Your task to perform on an android device: Open the calendar app, open the side menu, and click the "Day" option Image 0: 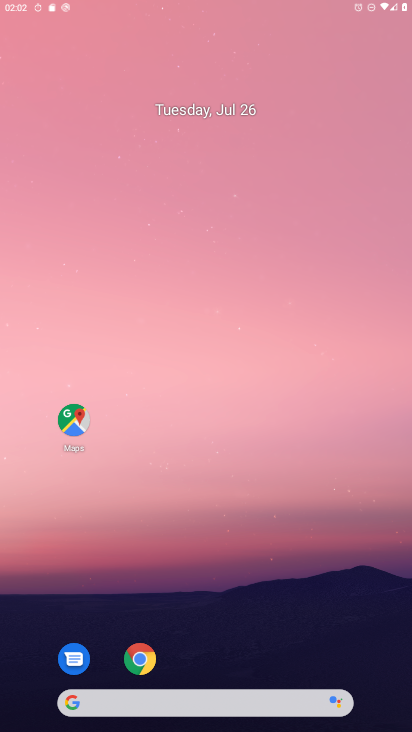
Step 0: press home button
Your task to perform on an android device: Open the calendar app, open the side menu, and click the "Day" option Image 1: 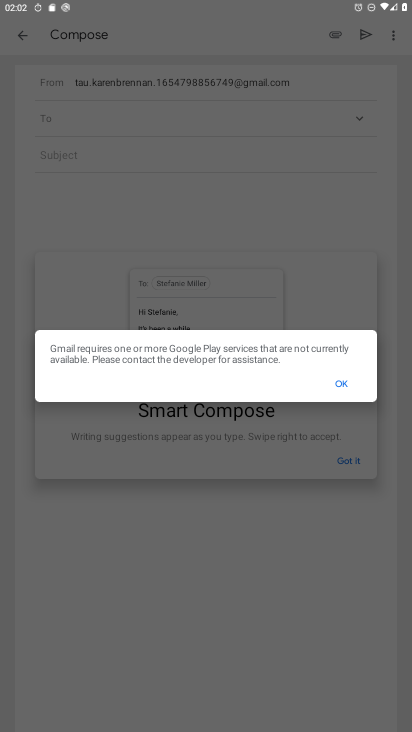
Step 1: drag from (167, 633) to (141, 161)
Your task to perform on an android device: Open the calendar app, open the side menu, and click the "Day" option Image 2: 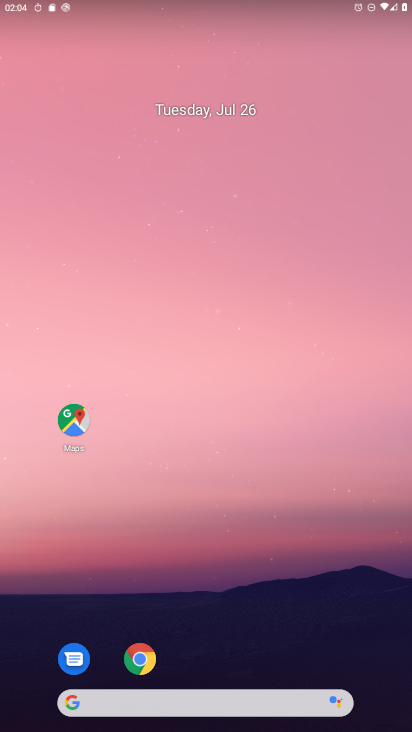
Step 2: drag from (249, 603) to (327, 90)
Your task to perform on an android device: Open the calendar app, open the side menu, and click the "Day" option Image 3: 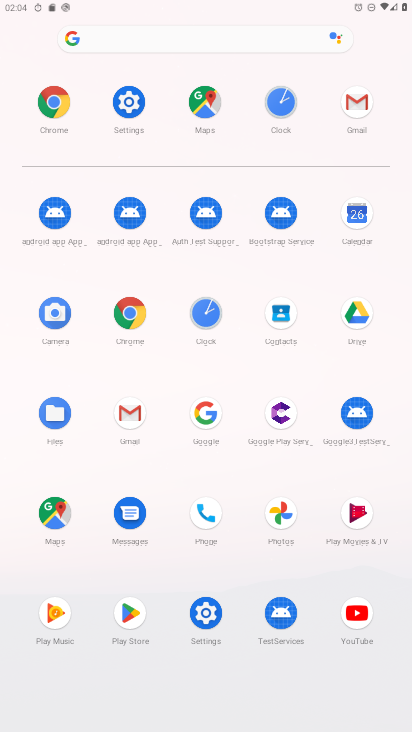
Step 3: click (359, 208)
Your task to perform on an android device: Open the calendar app, open the side menu, and click the "Day" option Image 4: 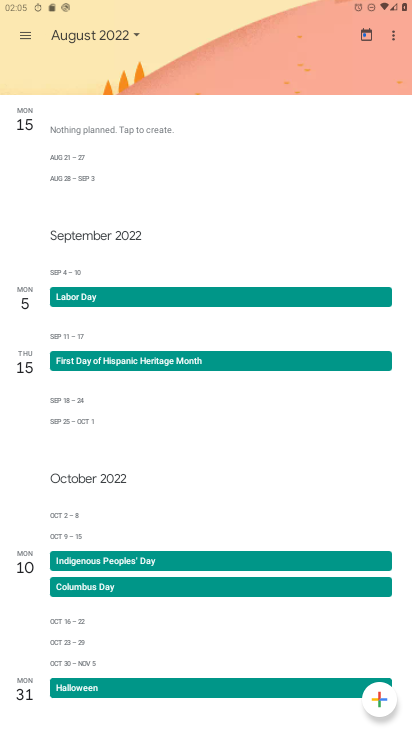
Step 4: click (35, 29)
Your task to perform on an android device: Open the calendar app, open the side menu, and click the "Day" option Image 5: 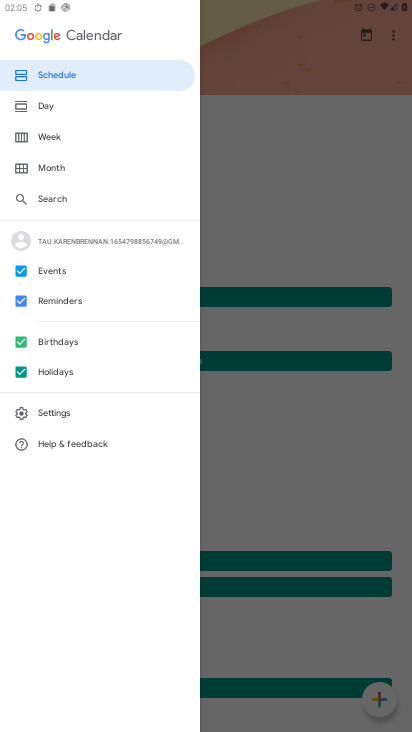
Step 5: click (12, 104)
Your task to perform on an android device: Open the calendar app, open the side menu, and click the "Day" option Image 6: 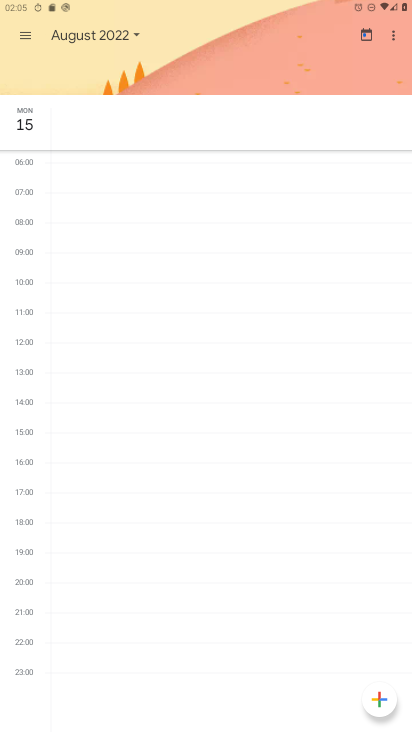
Step 6: task complete